Your task to perform on an android device: remove spam from my inbox in the gmail app Image 0: 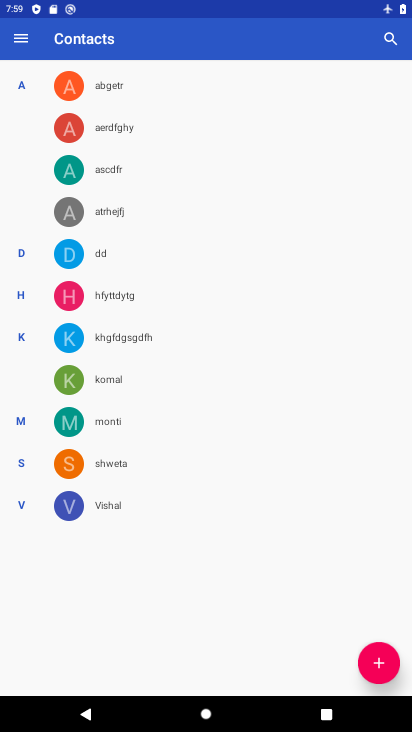
Step 0: press home button
Your task to perform on an android device: remove spam from my inbox in the gmail app Image 1: 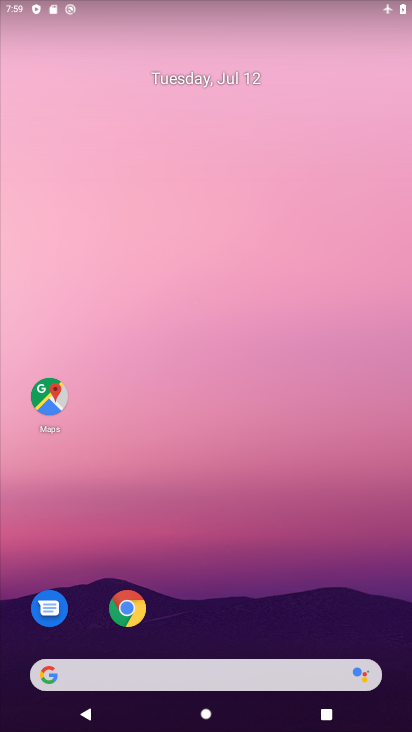
Step 1: drag from (188, 666) to (75, 127)
Your task to perform on an android device: remove spam from my inbox in the gmail app Image 2: 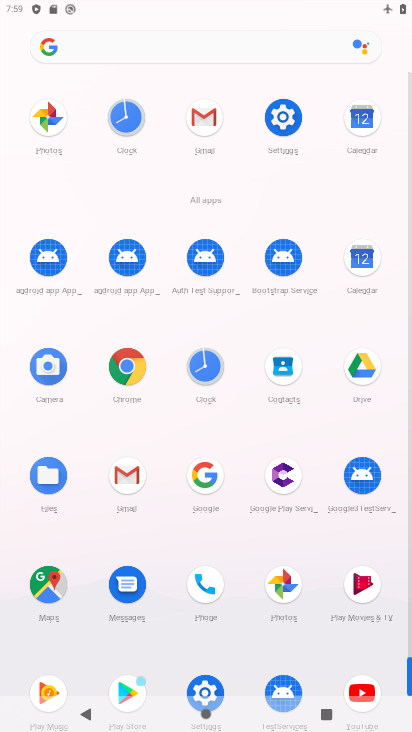
Step 2: click (136, 474)
Your task to perform on an android device: remove spam from my inbox in the gmail app Image 3: 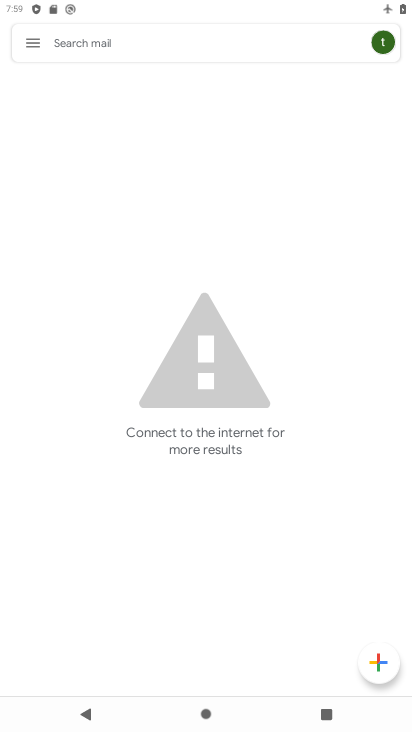
Step 3: click (28, 36)
Your task to perform on an android device: remove spam from my inbox in the gmail app Image 4: 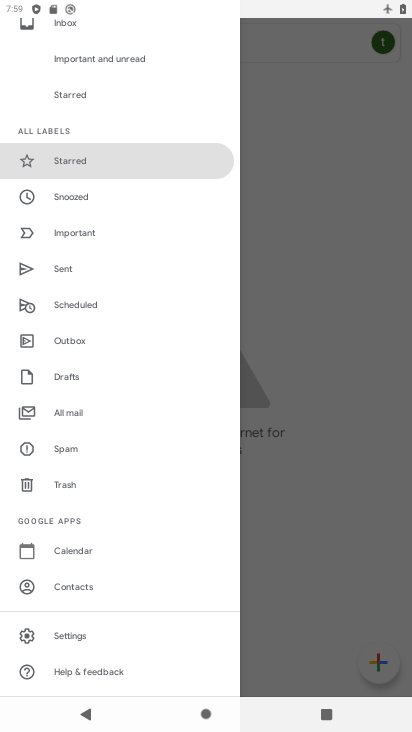
Step 4: click (65, 419)
Your task to perform on an android device: remove spam from my inbox in the gmail app Image 5: 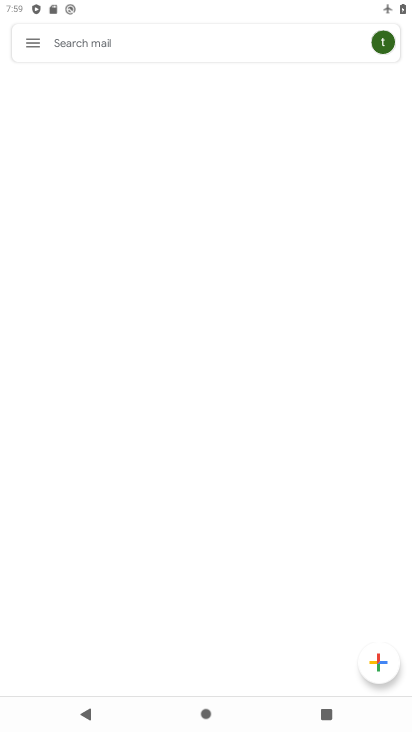
Step 5: task complete